Your task to perform on an android device: set an alarm Image 0: 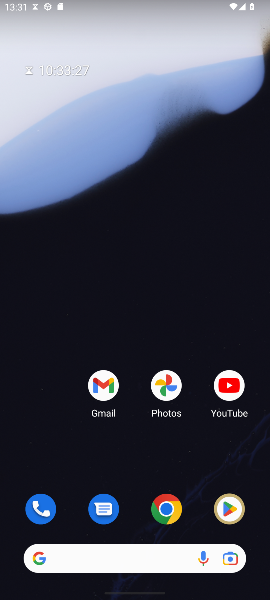
Step 0: press home button
Your task to perform on an android device: set an alarm Image 1: 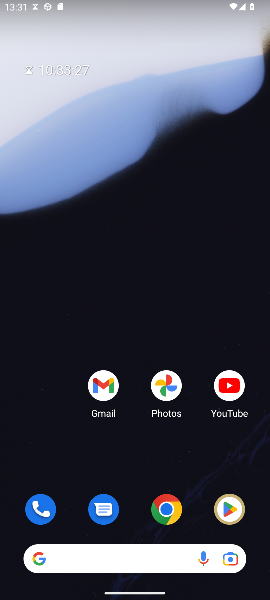
Step 1: drag from (140, 520) to (131, 157)
Your task to perform on an android device: set an alarm Image 2: 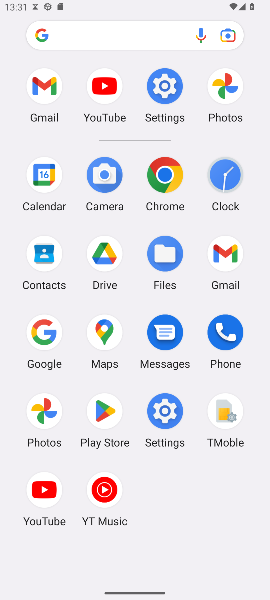
Step 2: click (225, 178)
Your task to perform on an android device: set an alarm Image 3: 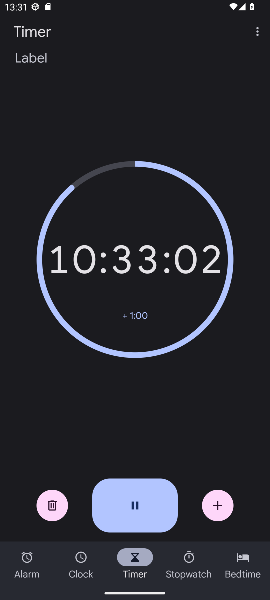
Step 3: click (27, 565)
Your task to perform on an android device: set an alarm Image 4: 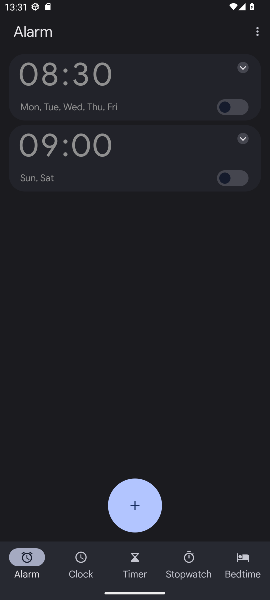
Step 4: click (231, 100)
Your task to perform on an android device: set an alarm Image 5: 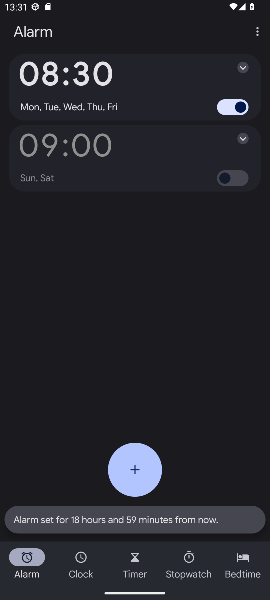
Step 5: task complete